Your task to perform on an android device: check the backup settings in the google photos Image 0: 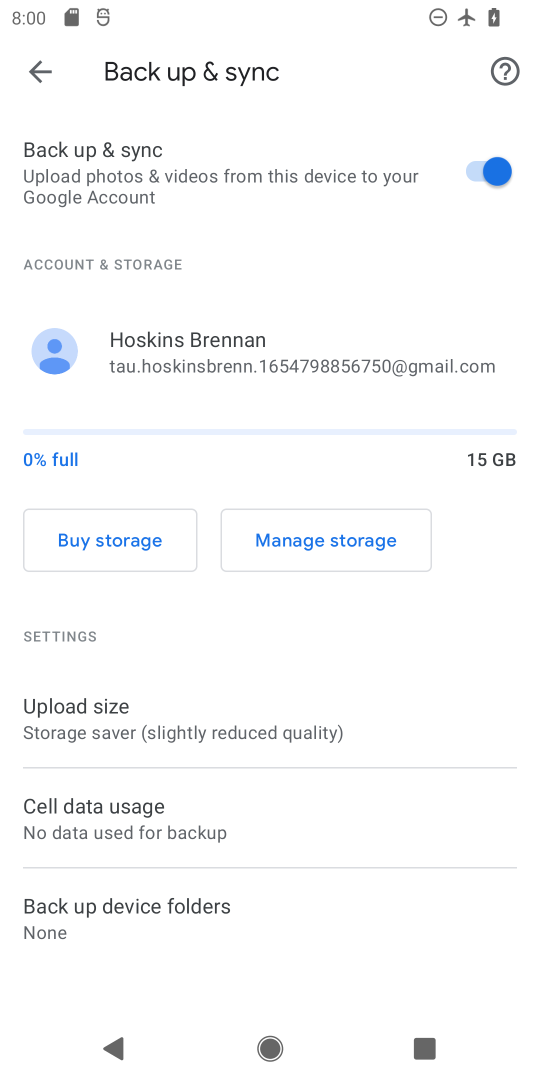
Step 0: press back button
Your task to perform on an android device: check the backup settings in the google photos Image 1: 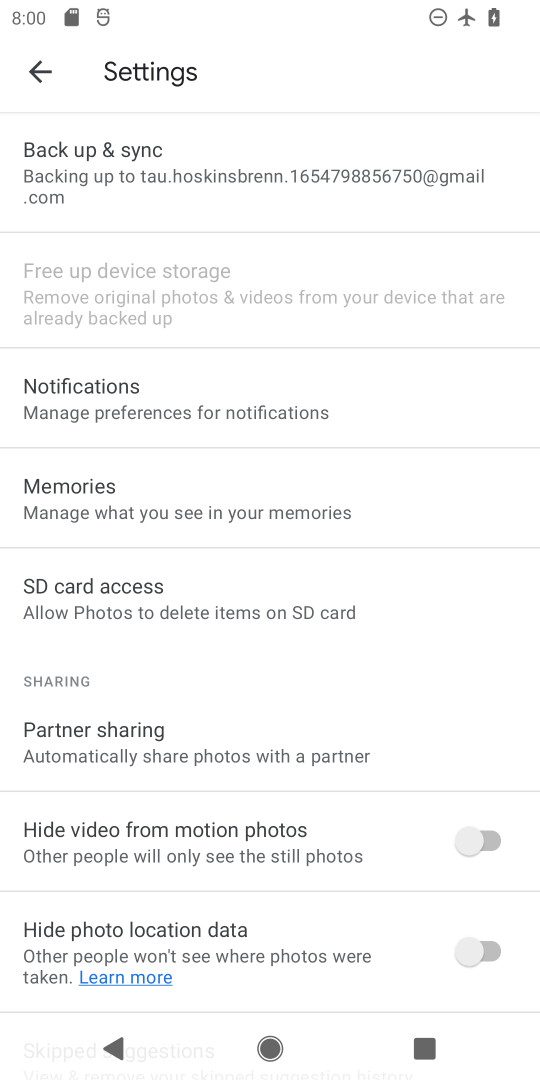
Step 1: press home button
Your task to perform on an android device: check the backup settings in the google photos Image 2: 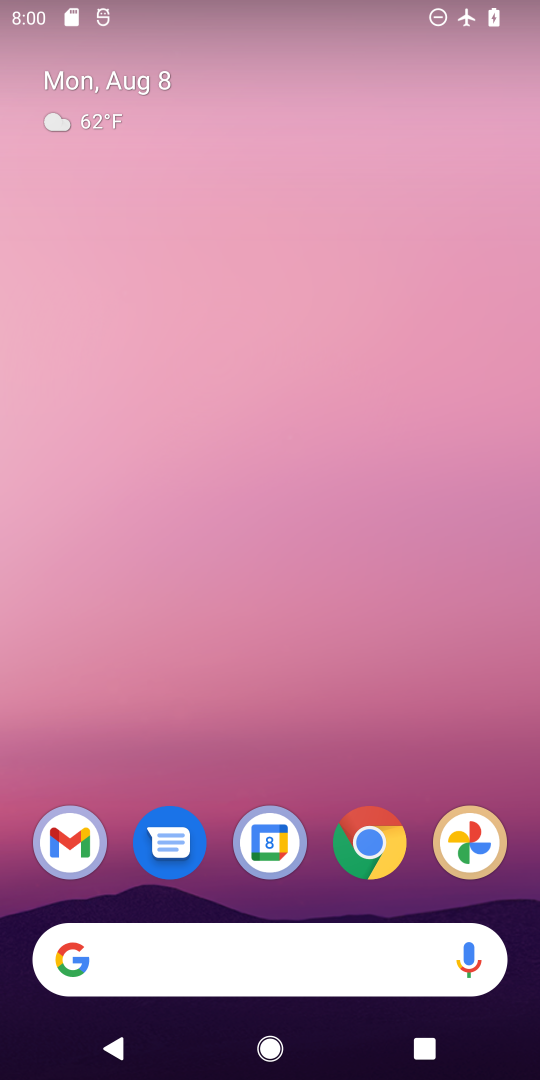
Step 2: drag from (248, 936) to (98, 154)
Your task to perform on an android device: check the backup settings in the google photos Image 3: 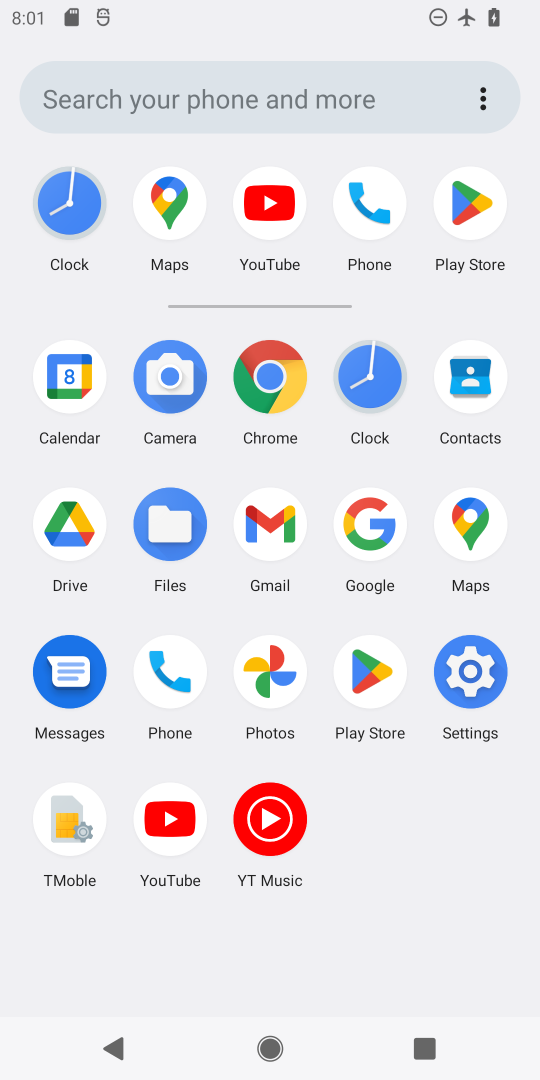
Step 3: click (259, 676)
Your task to perform on an android device: check the backup settings in the google photos Image 4: 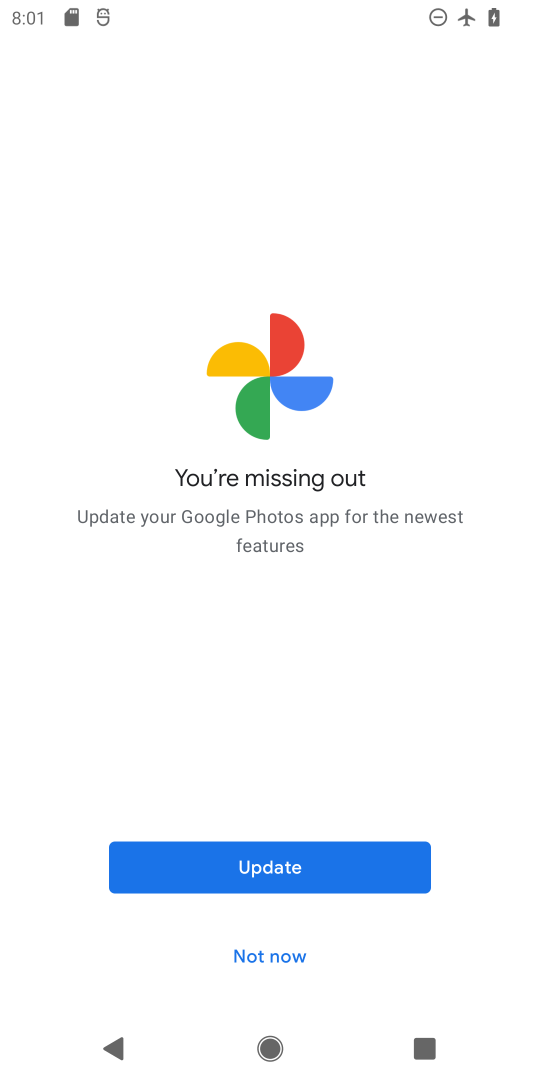
Step 4: click (296, 974)
Your task to perform on an android device: check the backup settings in the google photos Image 5: 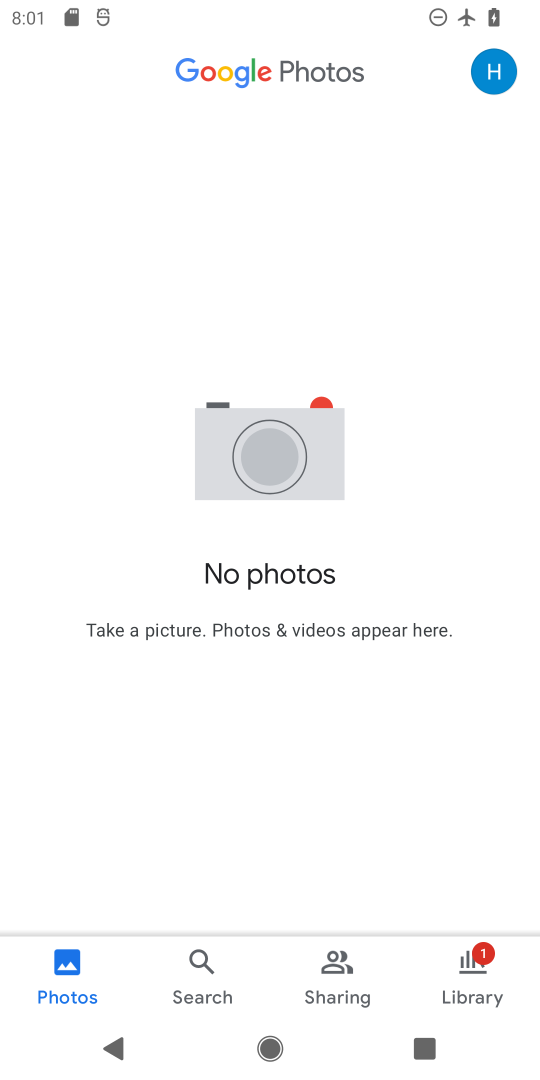
Step 5: drag from (472, 76) to (418, 375)
Your task to perform on an android device: check the backup settings in the google photos Image 6: 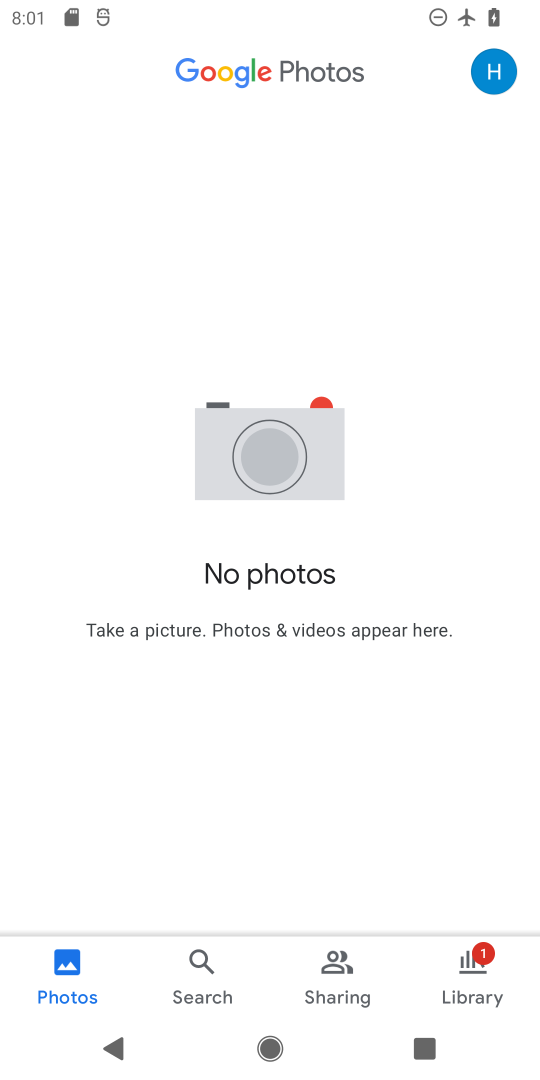
Step 6: click (493, 89)
Your task to perform on an android device: check the backup settings in the google photos Image 7: 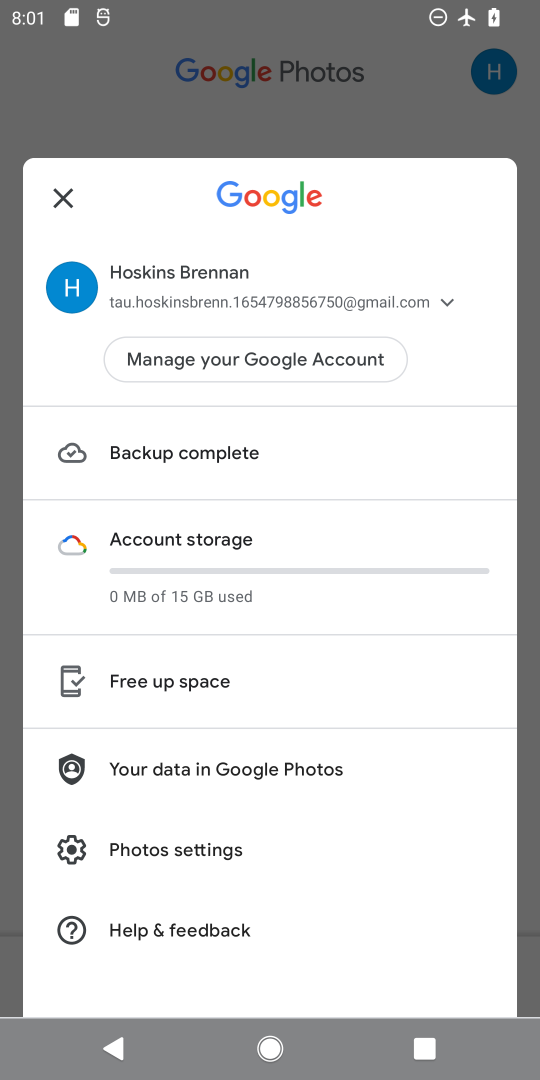
Step 7: click (191, 847)
Your task to perform on an android device: check the backup settings in the google photos Image 8: 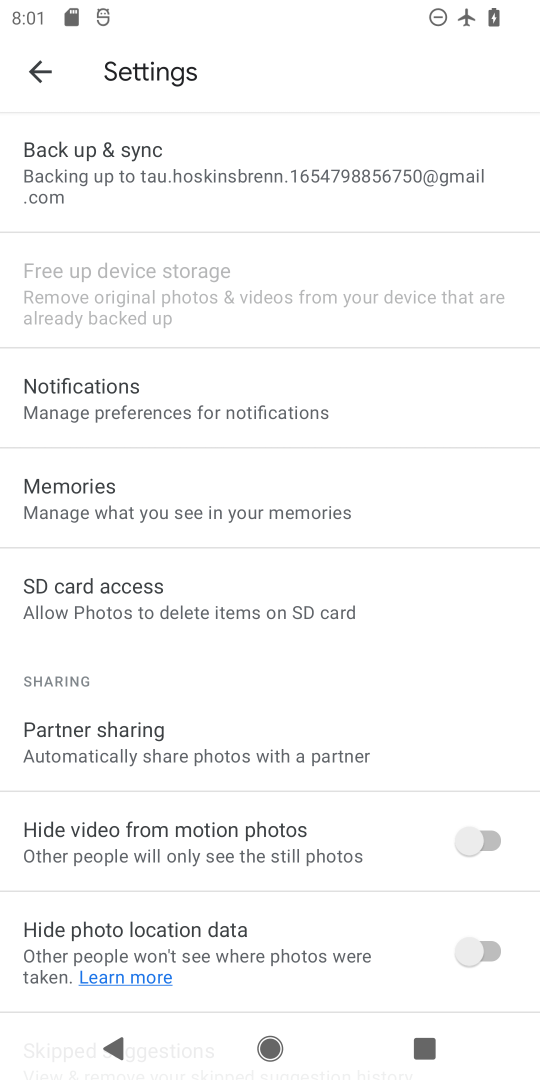
Step 8: click (100, 176)
Your task to perform on an android device: check the backup settings in the google photos Image 9: 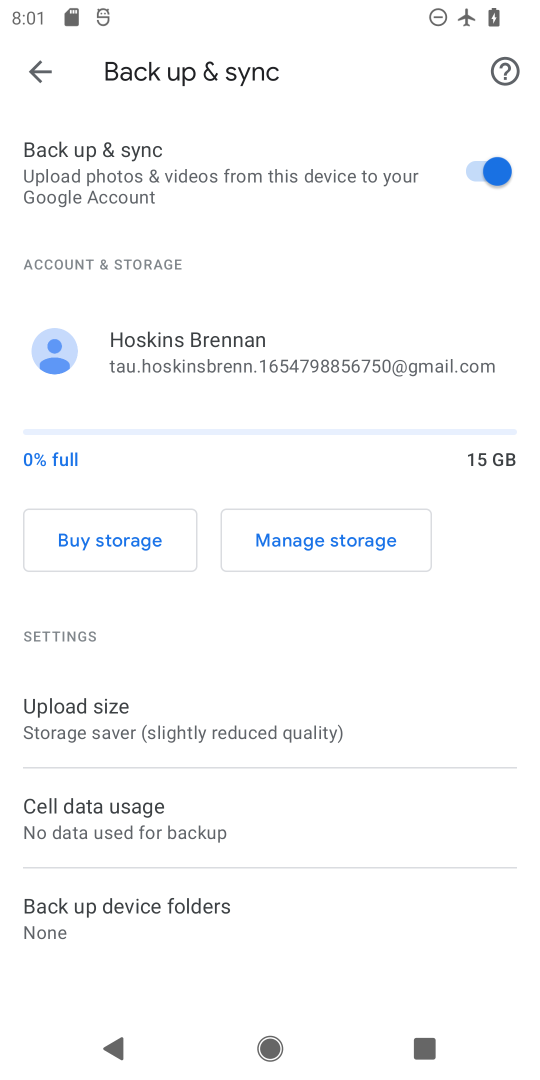
Step 9: task complete